Your task to perform on an android device: check out phone information Image 0: 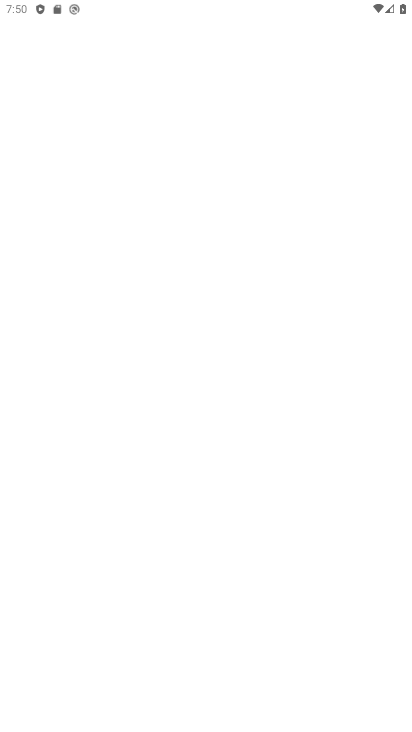
Step 0: drag from (216, 603) to (187, 89)
Your task to perform on an android device: check out phone information Image 1: 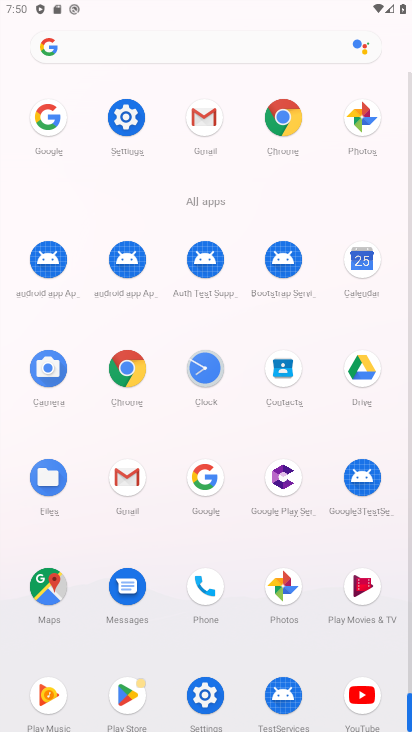
Step 1: click (128, 116)
Your task to perform on an android device: check out phone information Image 2: 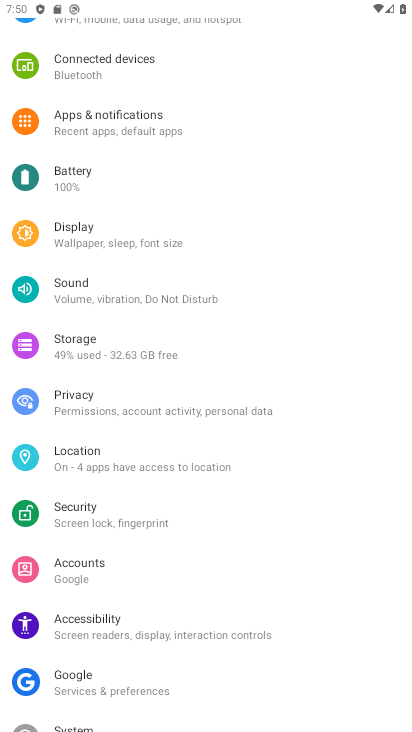
Step 2: drag from (132, 597) to (136, 57)
Your task to perform on an android device: check out phone information Image 3: 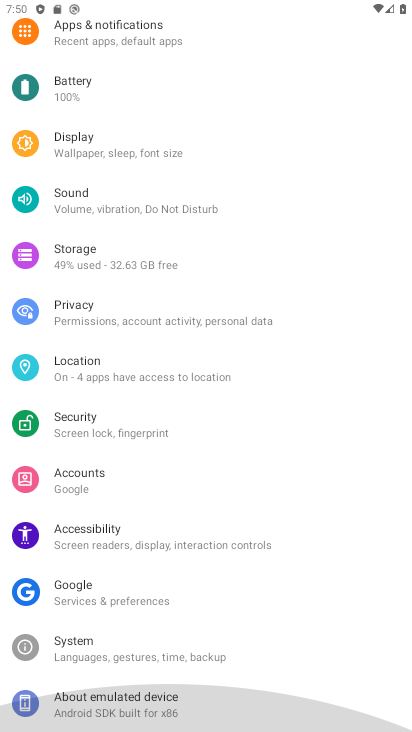
Step 3: drag from (127, 453) to (91, 34)
Your task to perform on an android device: check out phone information Image 4: 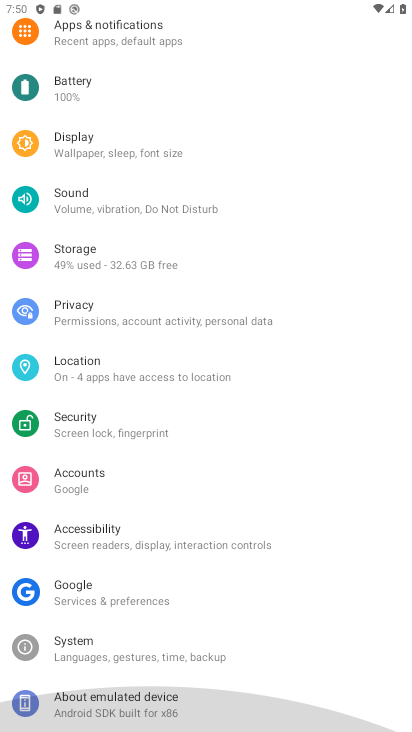
Step 4: drag from (91, 360) to (95, 71)
Your task to perform on an android device: check out phone information Image 5: 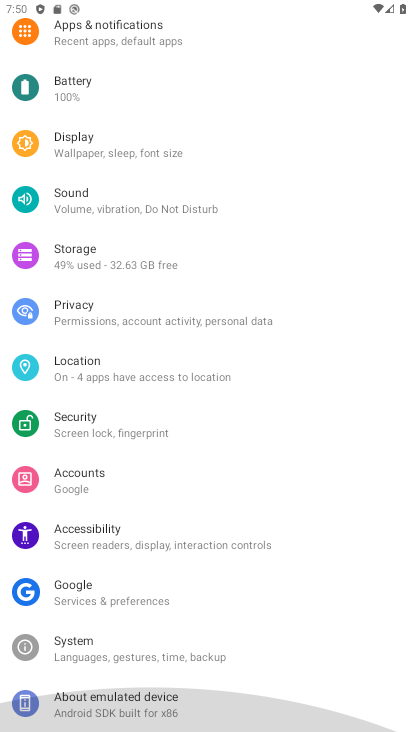
Step 5: drag from (115, 437) to (121, 115)
Your task to perform on an android device: check out phone information Image 6: 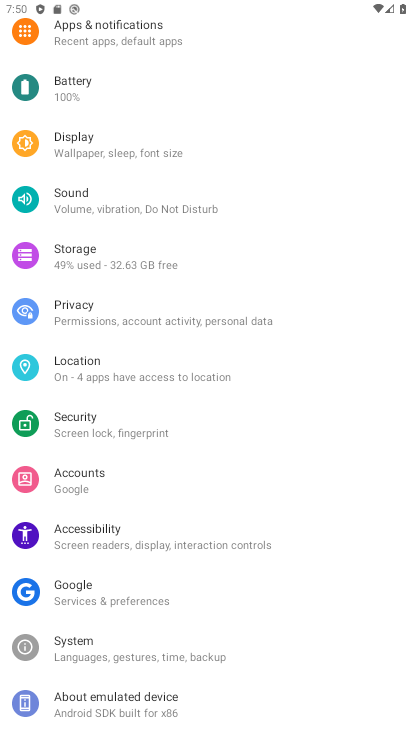
Step 6: click (106, 697)
Your task to perform on an android device: check out phone information Image 7: 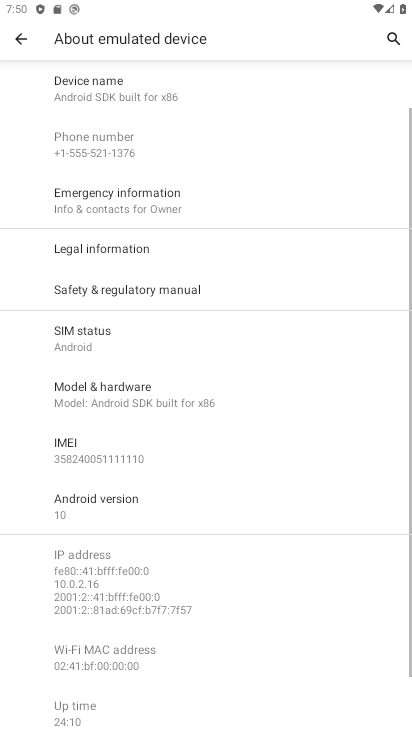
Step 7: task complete